Your task to perform on an android device: turn on the 24-hour format for clock Image 0: 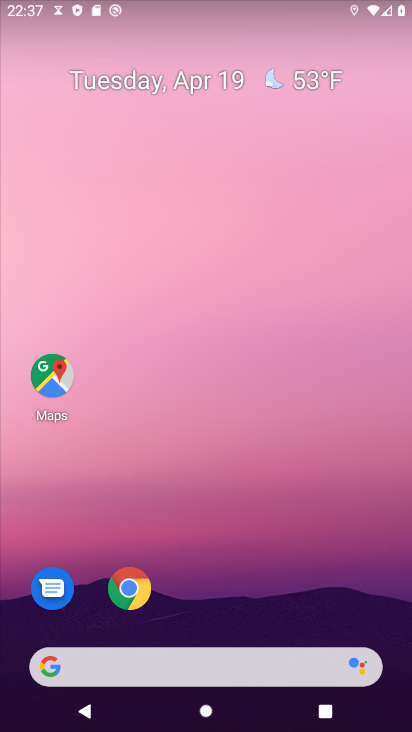
Step 0: drag from (270, 482) to (278, 75)
Your task to perform on an android device: turn on the 24-hour format for clock Image 1: 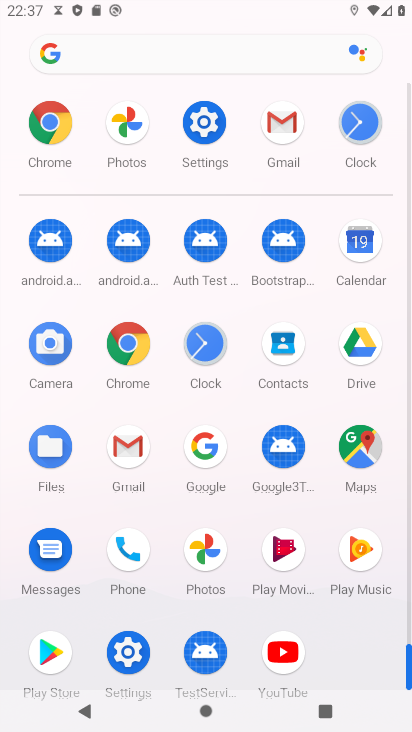
Step 1: click (360, 124)
Your task to perform on an android device: turn on the 24-hour format for clock Image 2: 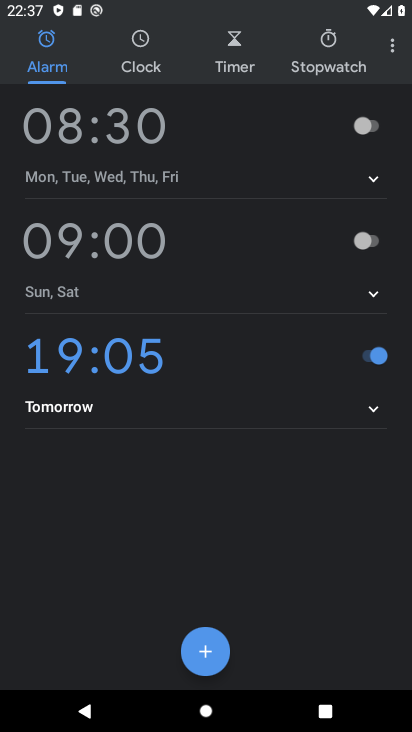
Step 2: click (393, 46)
Your task to perform on an android device: turn on the 24-hour format for clock Image 3: 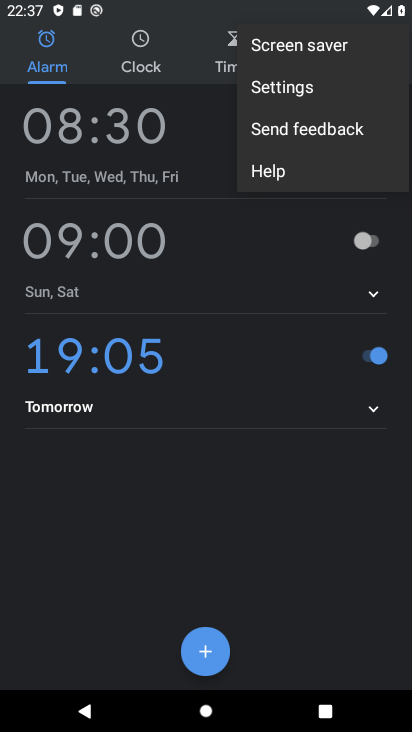
Step 3: click (317, 85)
Your task to perform on an android device: turn on the 24-hour format for clock Image 4: 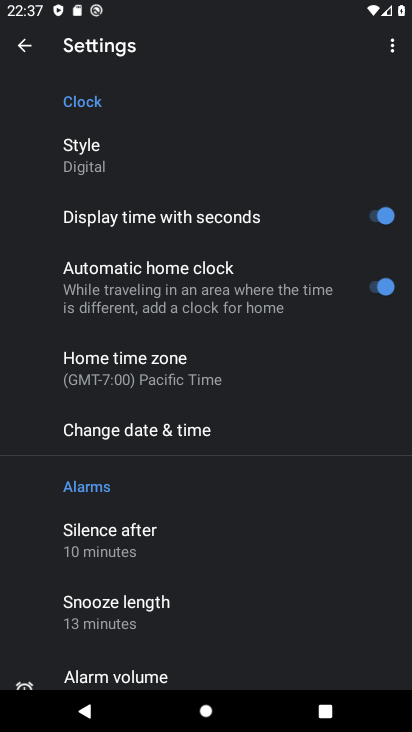
Step 4: click (192, 442)
Your task to perform on an android device: turn on the 24-hour format for clock Image 5: 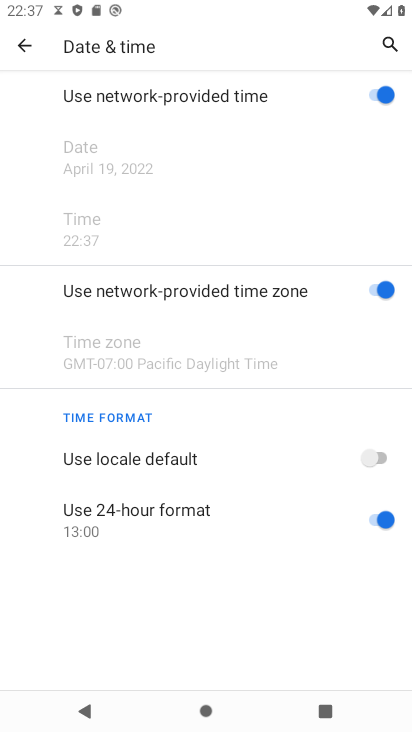
Step 5: task complete